Your task to perform on an android device: Open wifi settings Image 0: 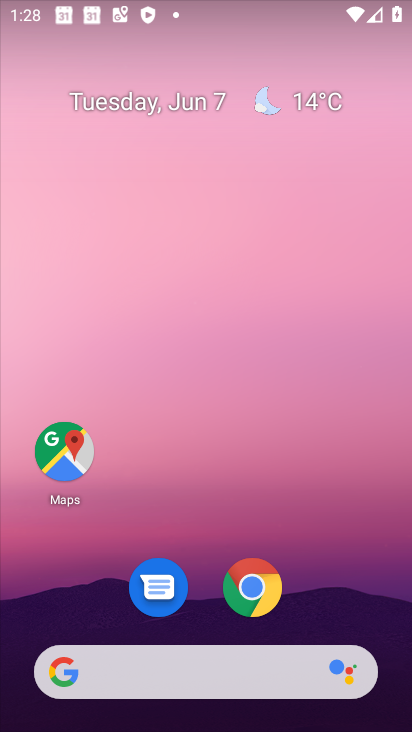
Step 0: drag from (225, 701) to (252, 216)
Your task to perform on an android device: Open wifi settings Image 1: 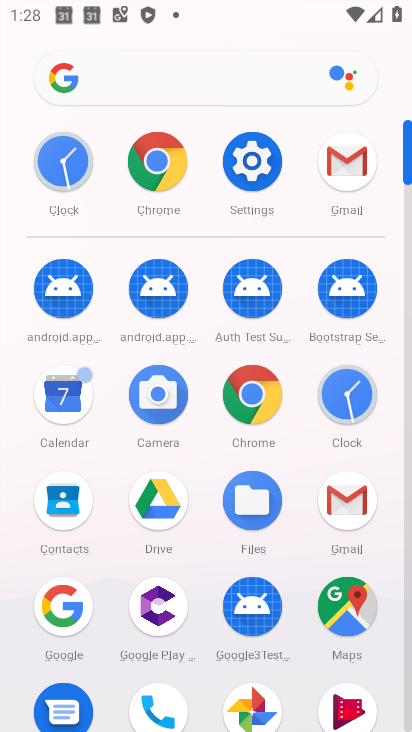
Step 1: click (404, 222)
Your task to perform on an android device: Open wifi settings Image 2: 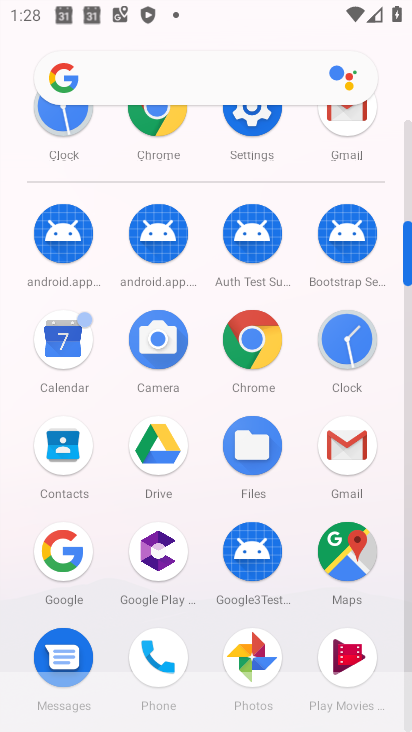
Step 2: click (408, 172)
Your task to perform on an android device: Open wifi settings Image 3: 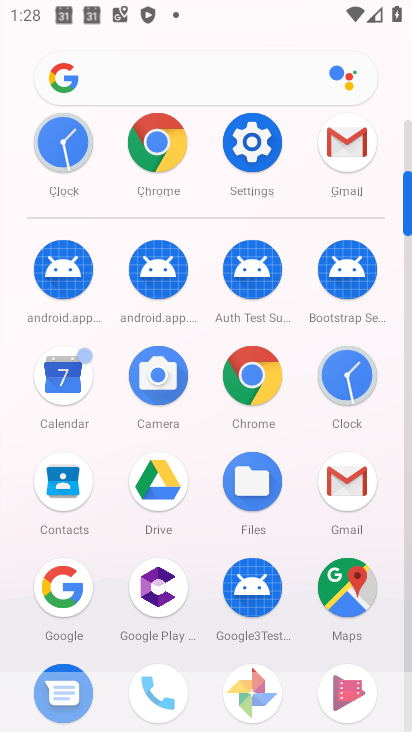
Step 3: click (411, 135)
Your task to perform on an android device: Open wifi settings Image 4: 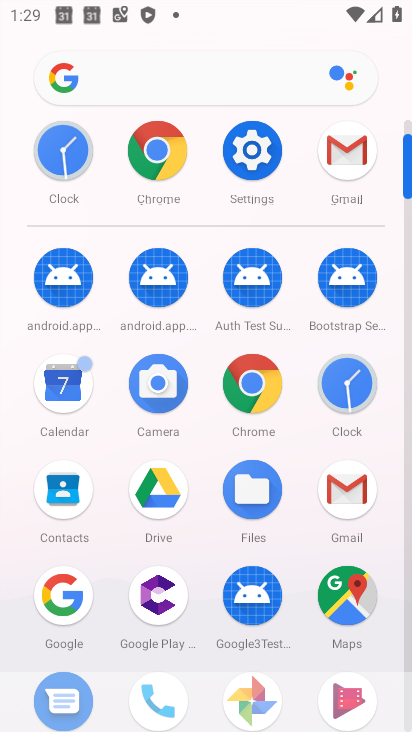
Step 4: click (269, 151)
Your task to perform on an android device: Open wifi settings Image 5: 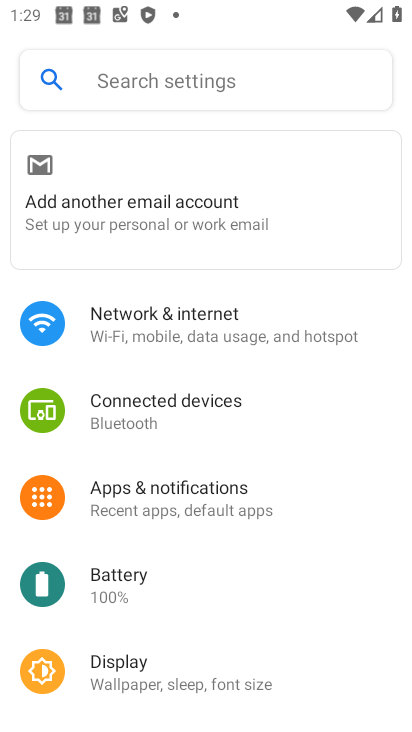
Step 5: click (225, 322)
Your task to perform on an android device: Open wifi settings Image 6: 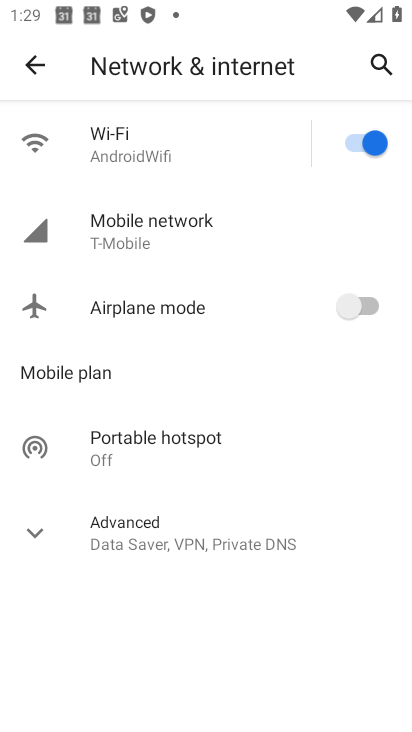
Step 6: click (198, 145)
Your task to perform on an android device: Open wifi settings Image 7: 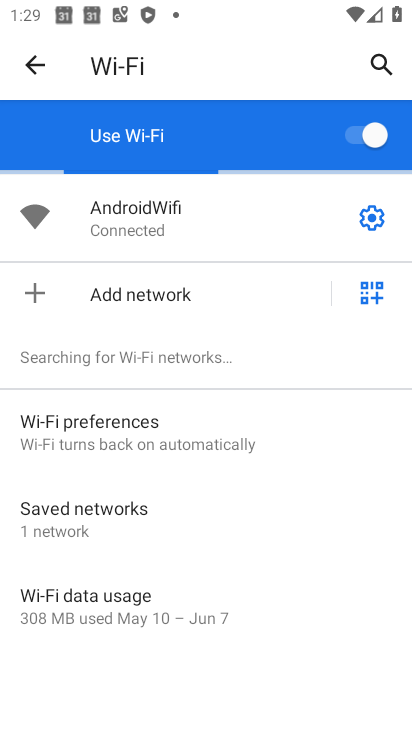
Step 7: task complete